Your task to perform on an android device: Search for "dell xps" on bestbuy, select the first entry, add it to the cart, then select checkout. Image 0: 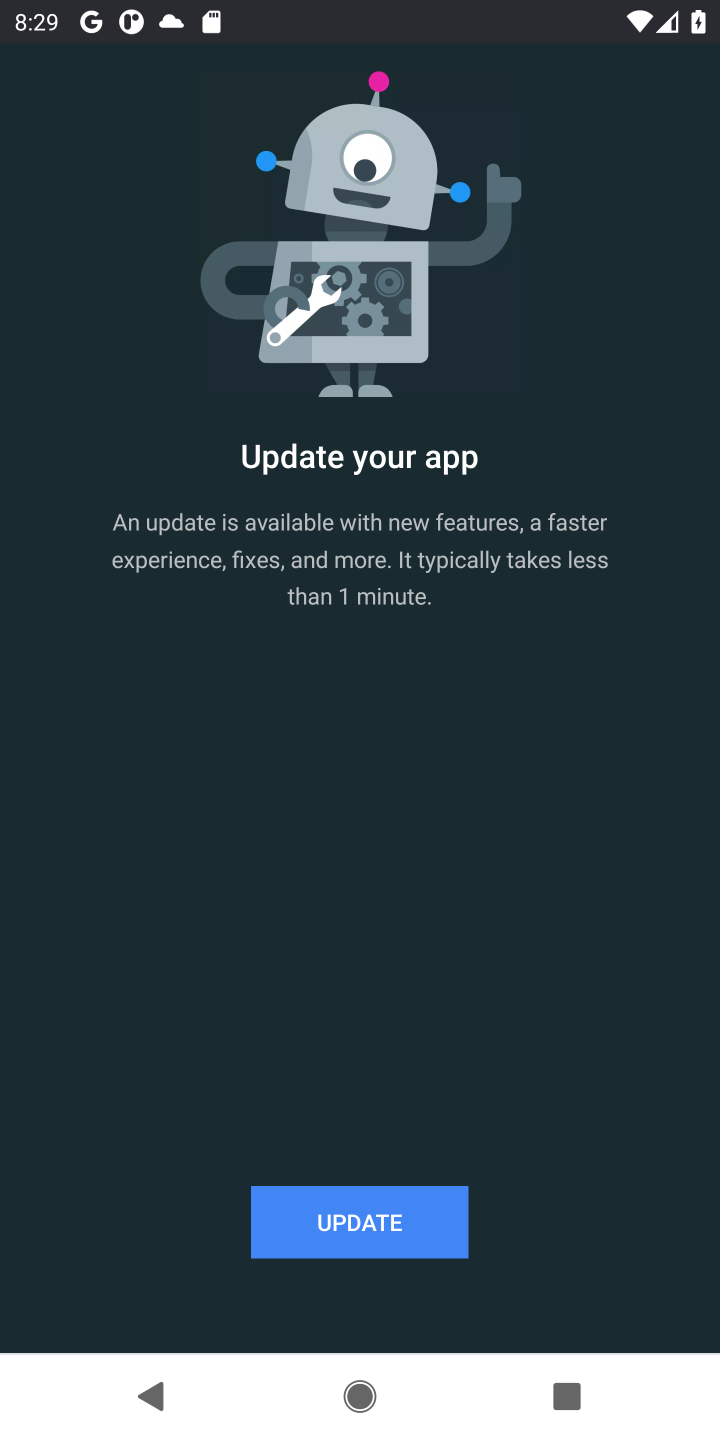
Step 0: press home button
Your task to perform on an android device: Search for "dell xps" on bestbuy, select the first entry, add it to the cart, then select checkout. Image 1: 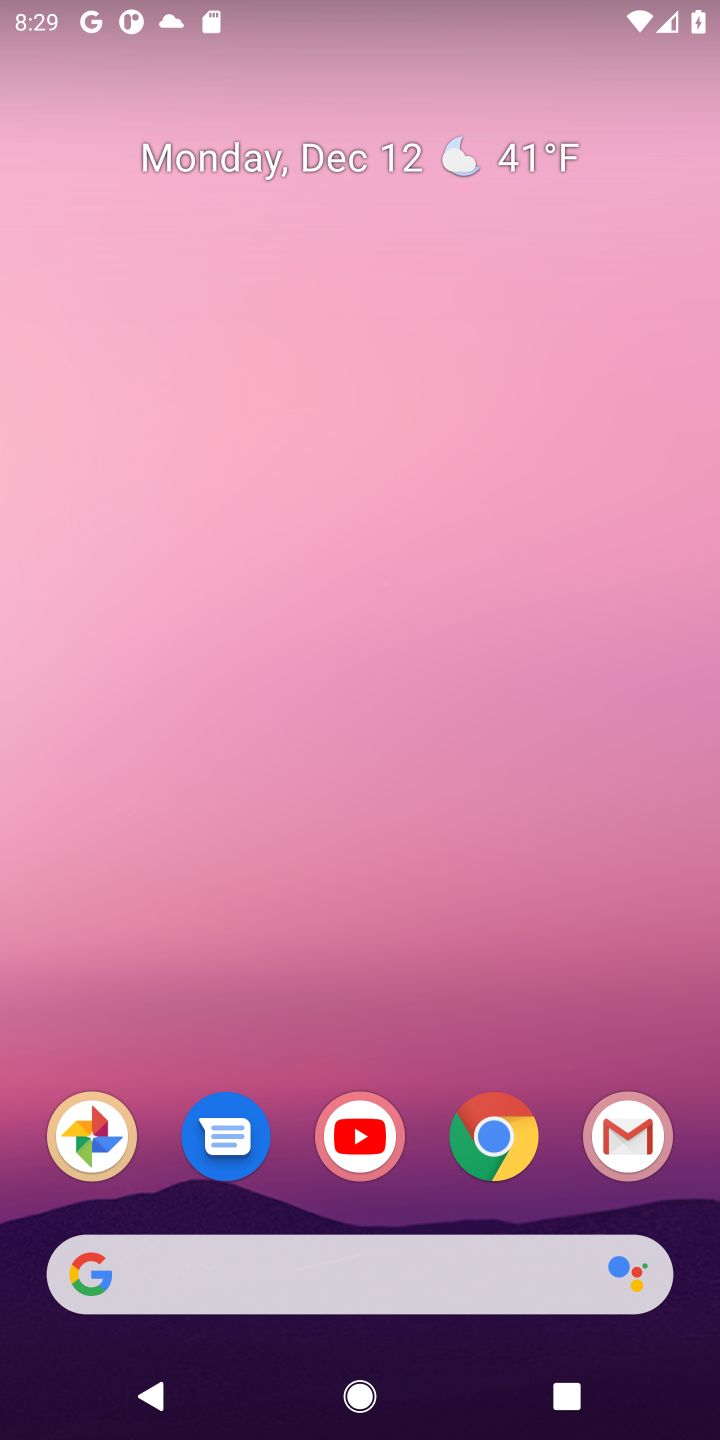
Step 1: click (502, 1130)
Your task to perform on an android device: Search for "dell xps" on bestbuy, select the first entry, add it to the cart, then select checkout. Image 2: 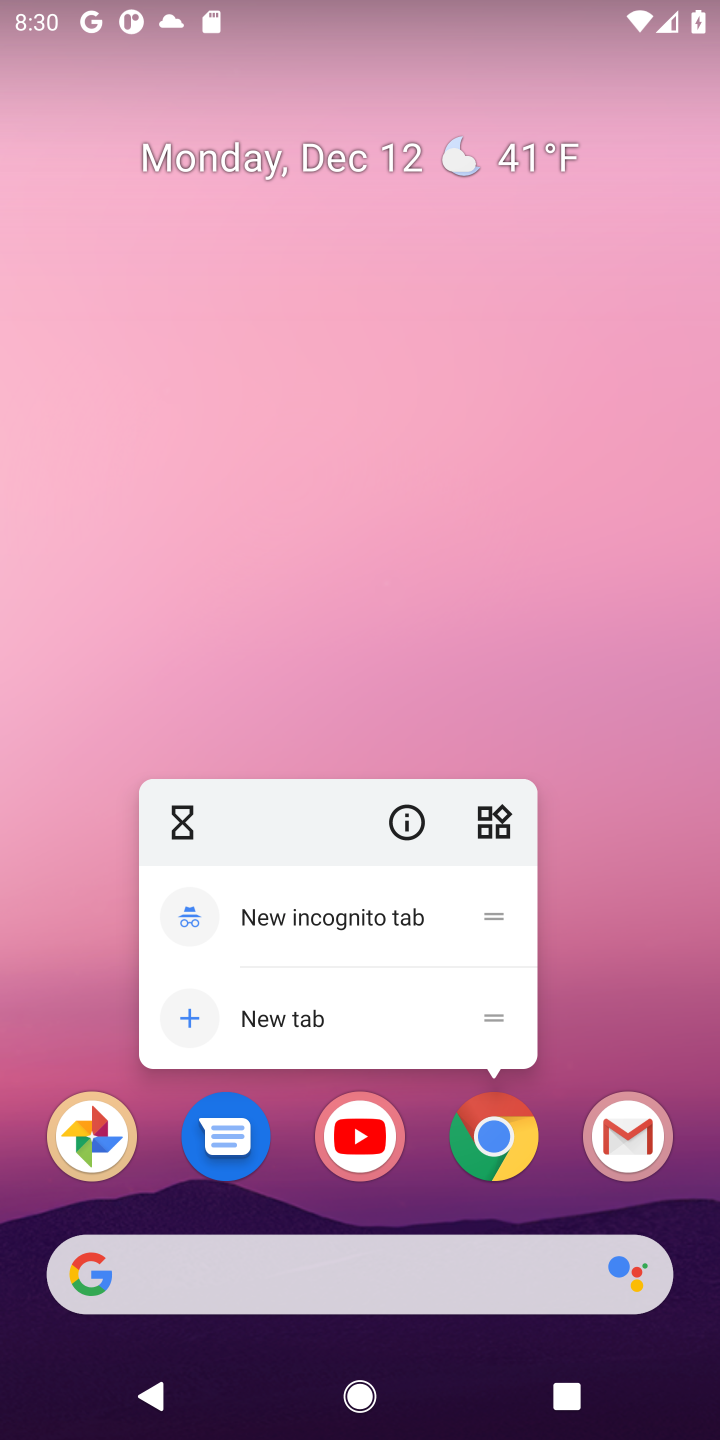
Step 2: click (502, 1130)
Your task to perform on an android device: Search for "dell xps" on bestbuy, select the first entry, add it to the cart, then select checkout. Image 3: 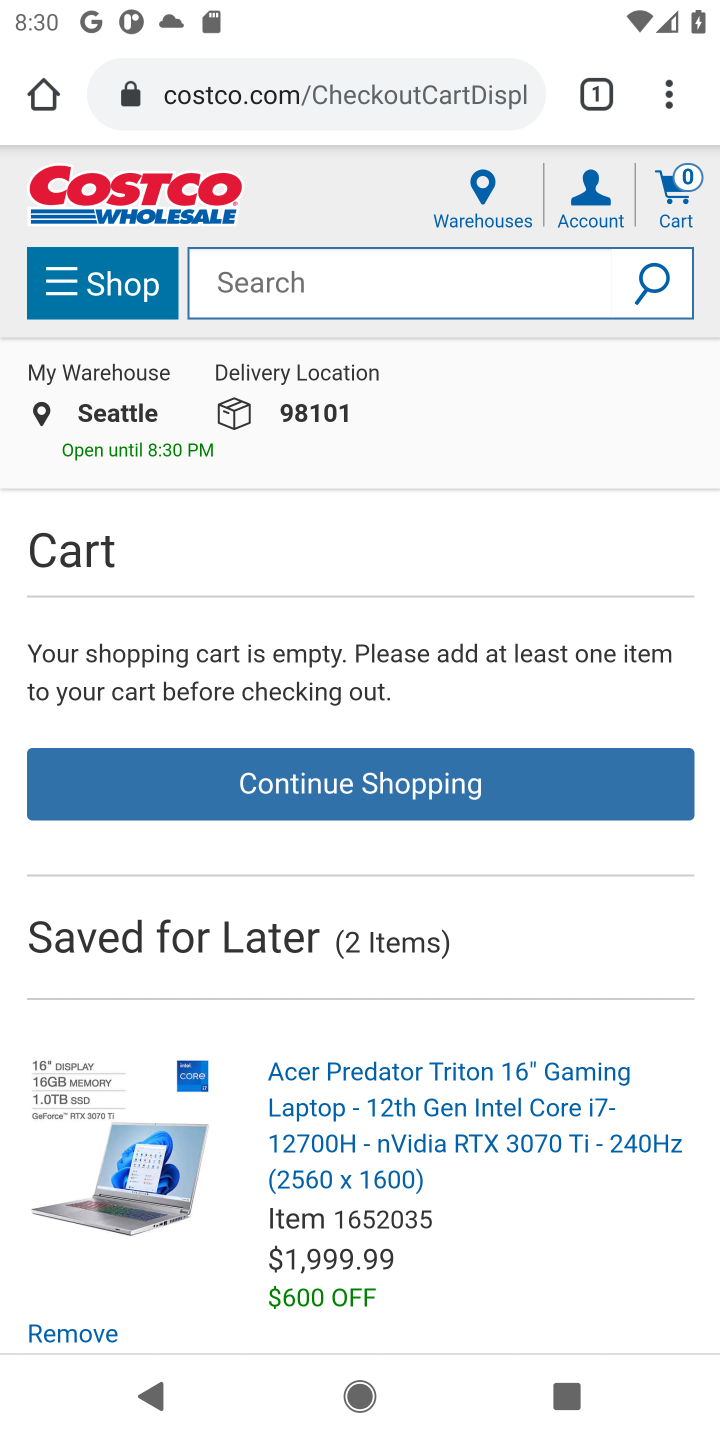
Step 3: click (299, 86)
Your task to perform on an android device: Search for "dell xps" on bestbuy, select the first entry, add it to the cart, then select checkout. Image 4: 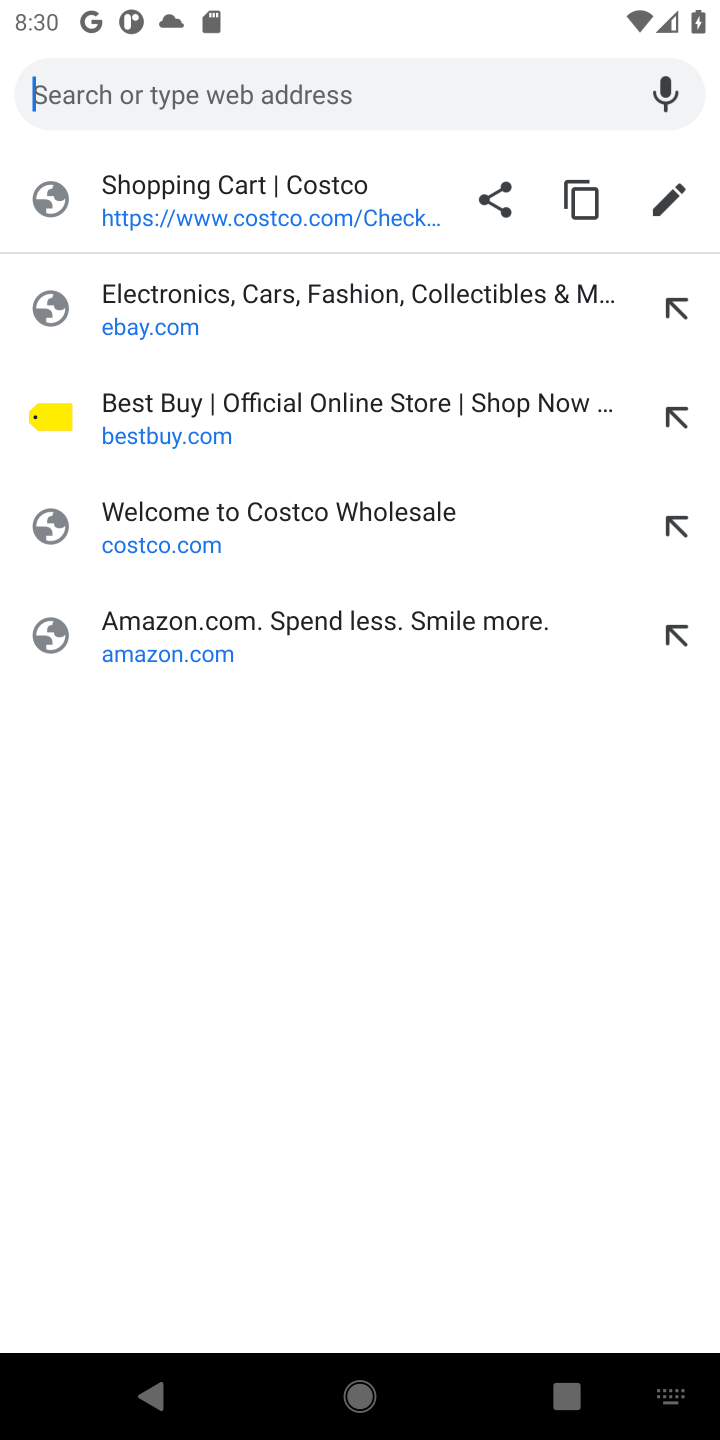
Step 4: click (156, 422)
Your task to perform on an android device: Search for "dell xps" on bestbuy, select the first entry, add it to the cart, then select checkout. Image 5: 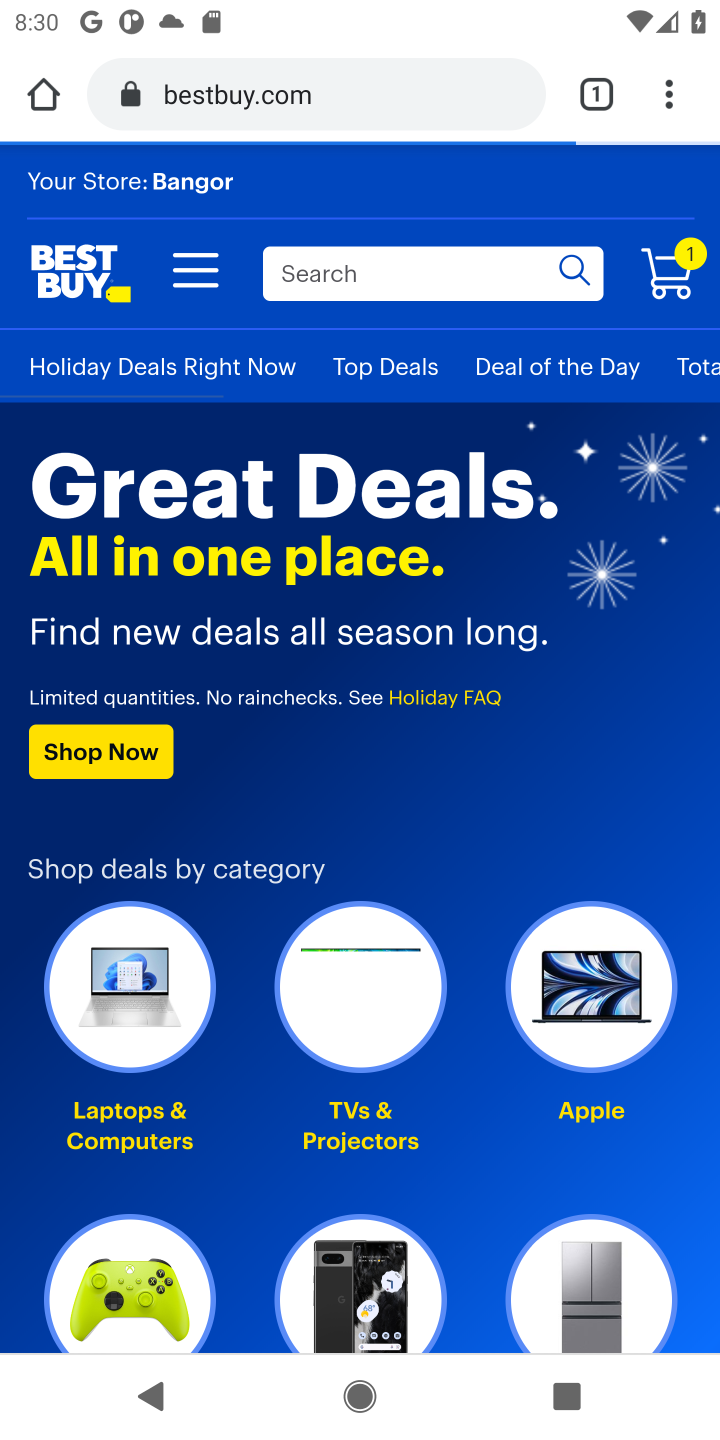
Step 5: click (156, 422)
Your task to perform on an android device: Search for "dell xps" on bestbuy, select the first entry, add it to the cart, then select checkout. Image 6: 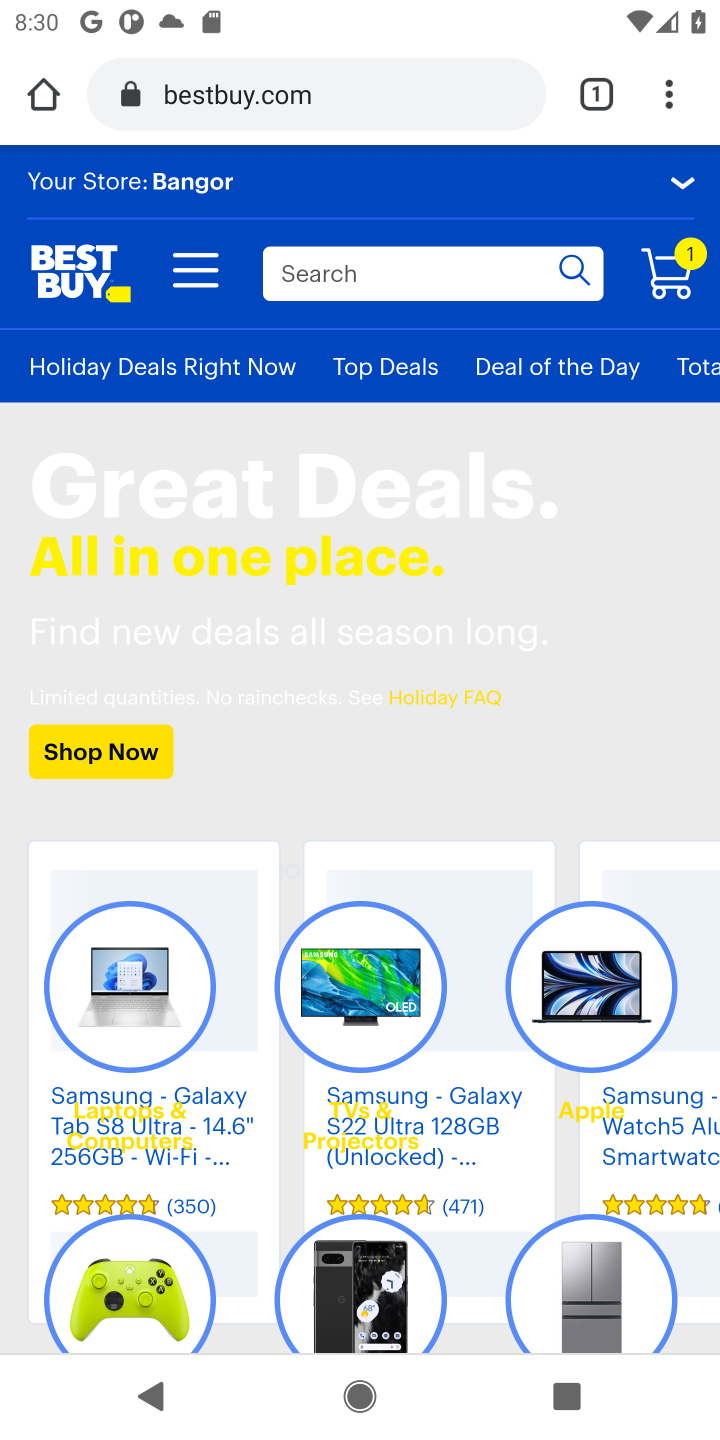
Step 6: click (369, 267)
Your task to perform on an android device: Search for "dell xps" on bestbuy, select the first entry, add it to the cart, then select checkout. Image 7: 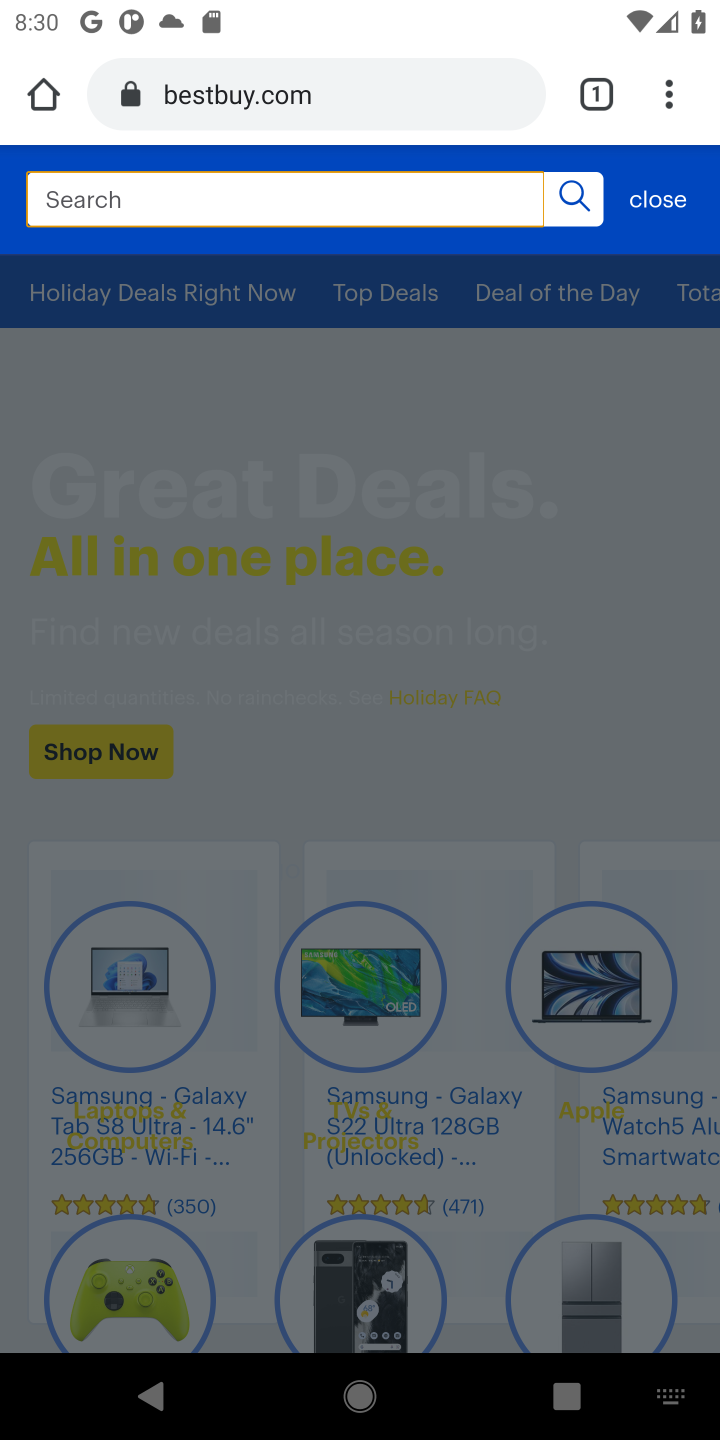
Step 7: type "dell xps"
Your task to perform on an android device: Search for "dell xps" on bestbuy, select the first entry, add it to the cart, then select checkout. Image 8: 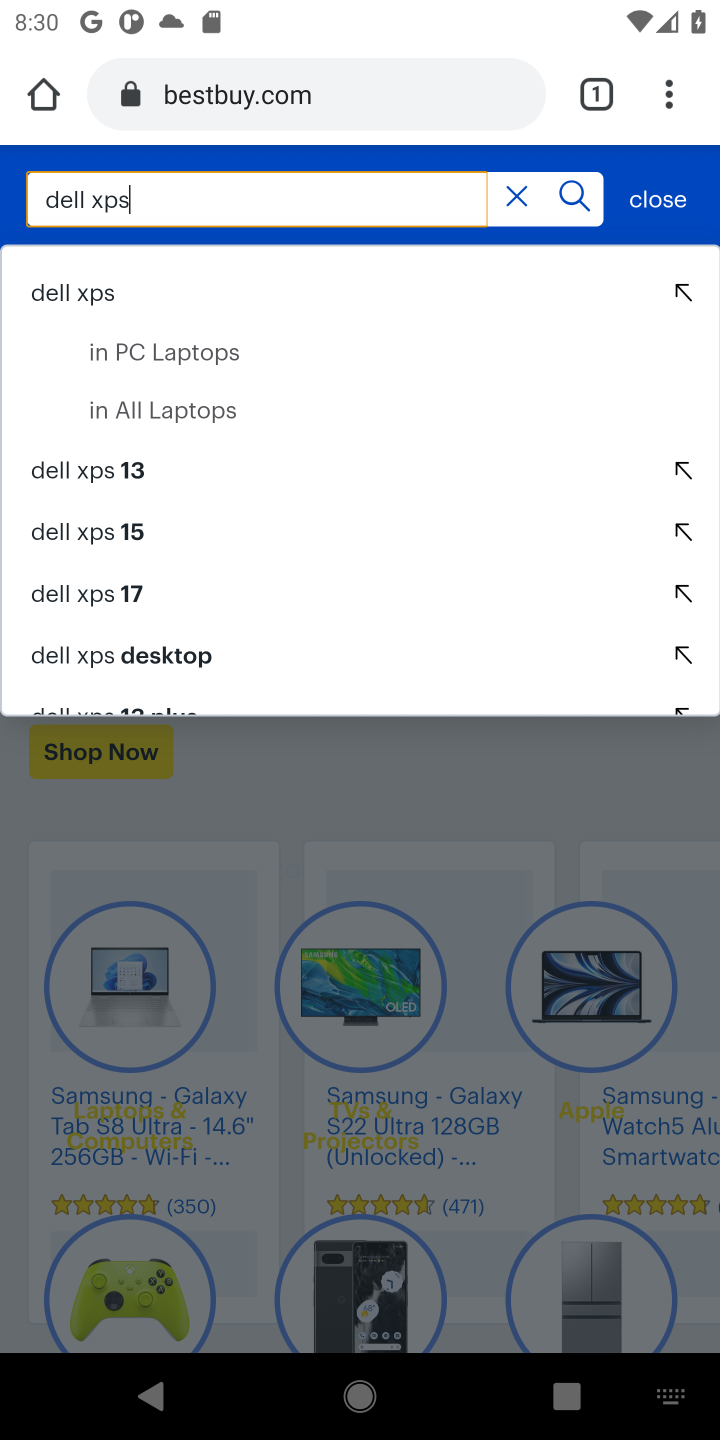
Step 8: click (73, 302)
Your task to perform on an android device: Search for "dell xps" on bestbuy, select the first entry, add it to the cart, then select checkout. Image 9: 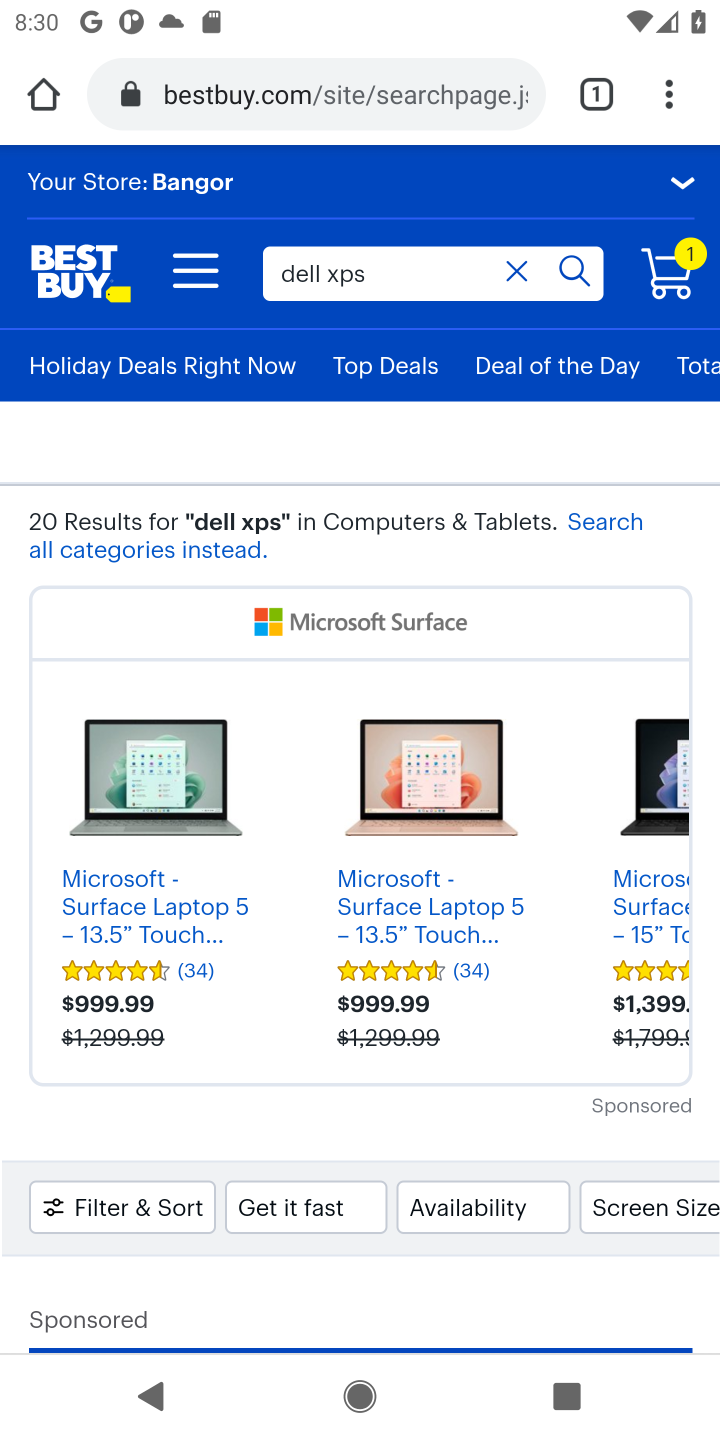
Step 9: drag from (295, 1007) to (233, 463)
Your task to perform on an android device: Search for "dell xps" on bestbuy, select the first entry, add it to the cart, then select checkout. Image 10: 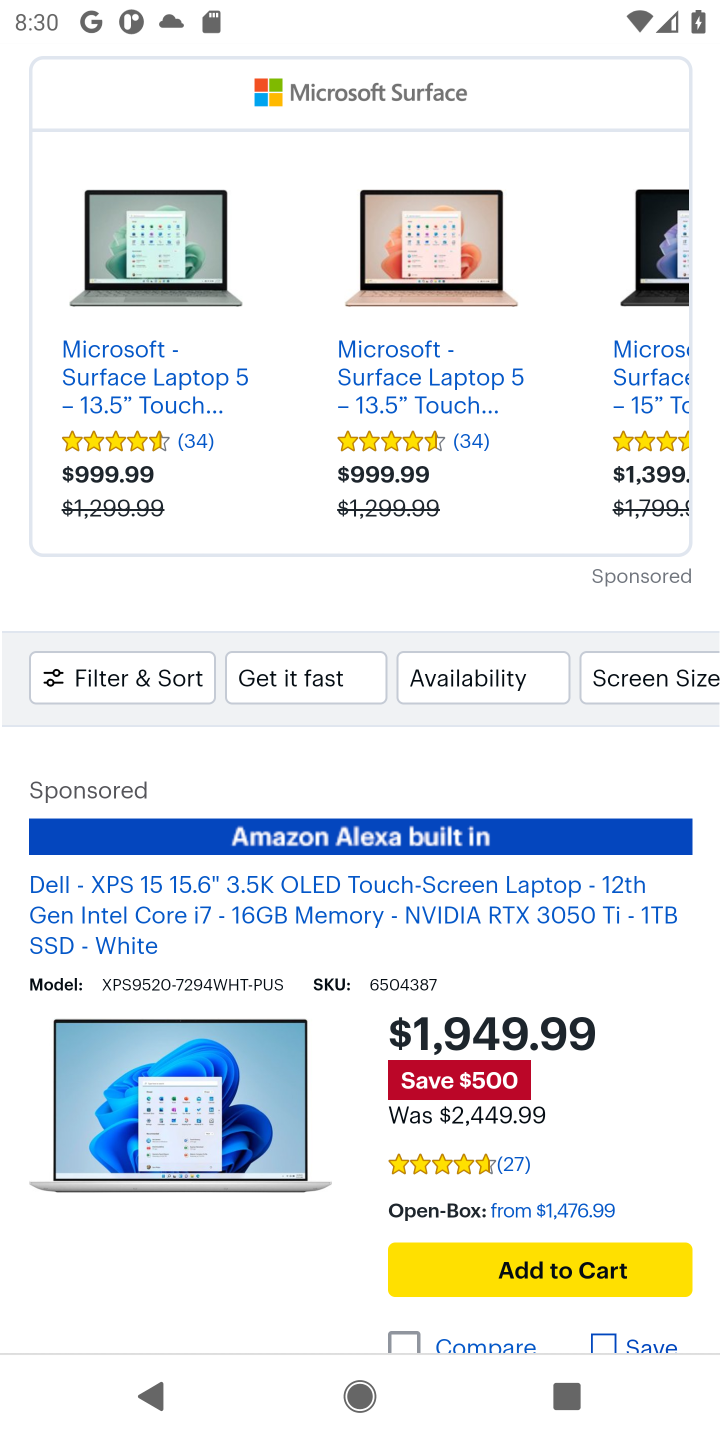
Step 10: drag from (279, 1027) to (259, 704)
Your task to perform on an android device: Search for "dell xps" on bestbuy, select the first entry, add it to the cart, then select checkout. Image 11: 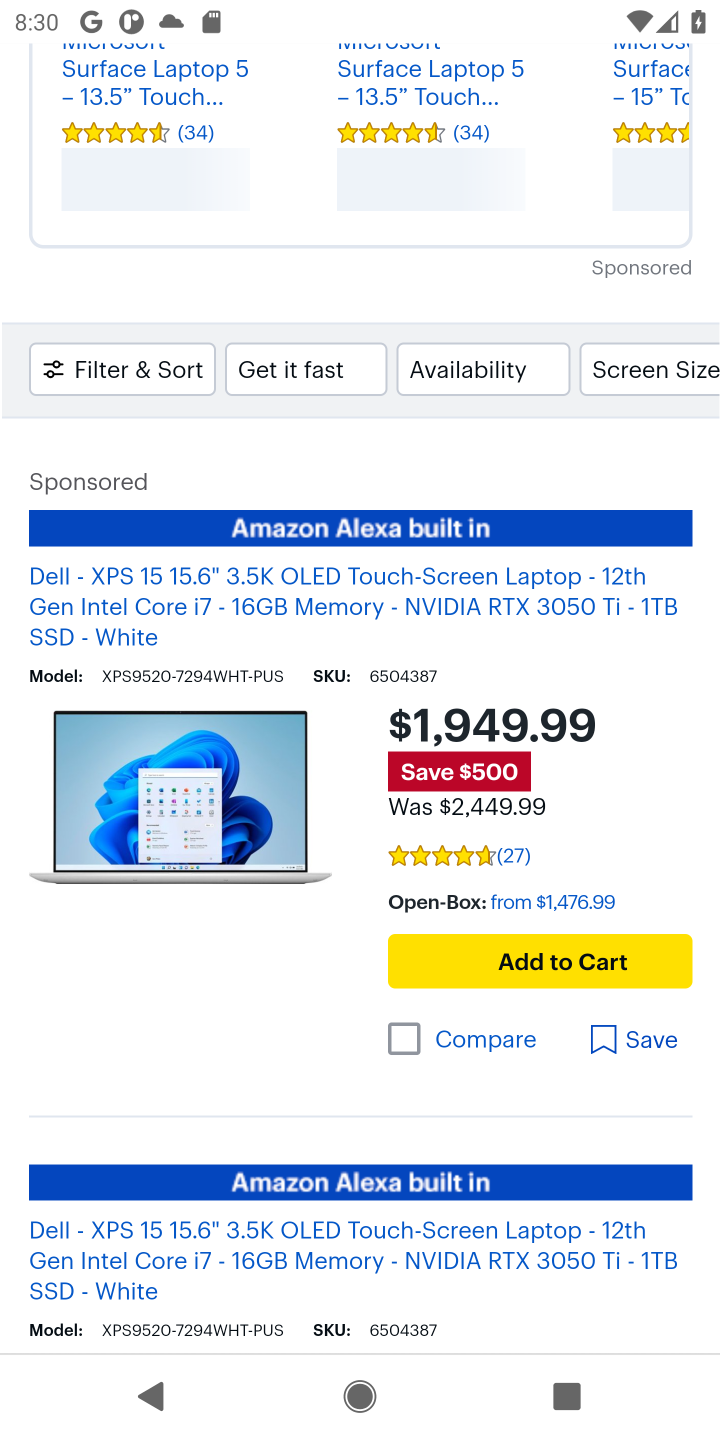
Step 11: click (476, 953)
Your task to perform on an android device: Search for "dell xps" on bestbuy, select the first entry, add it to the cart, then select checkout. Image 12: 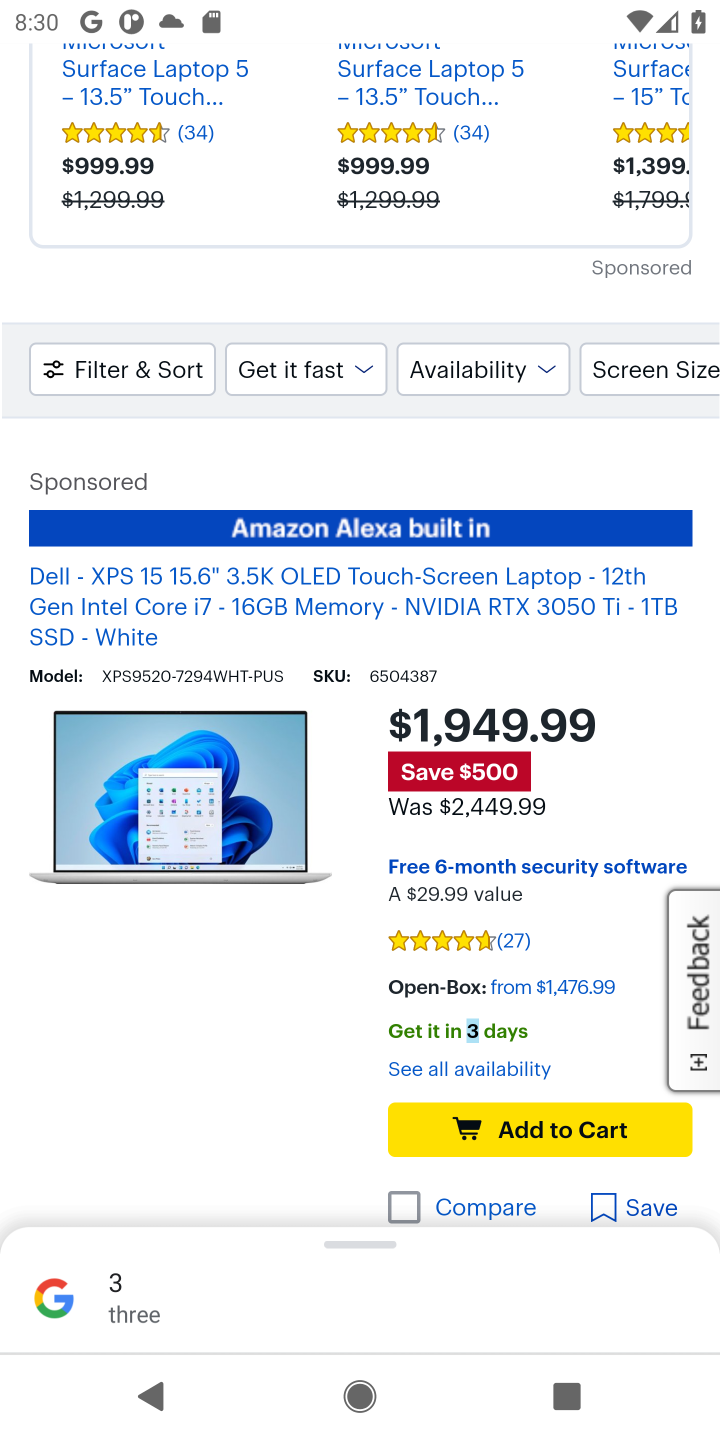
Step 12: click (511, 1118)
Your task to perform on an android device: Search for "dell xps" on bestbuy, select the first entry, add it to the cart, then select checkout. Image 13: 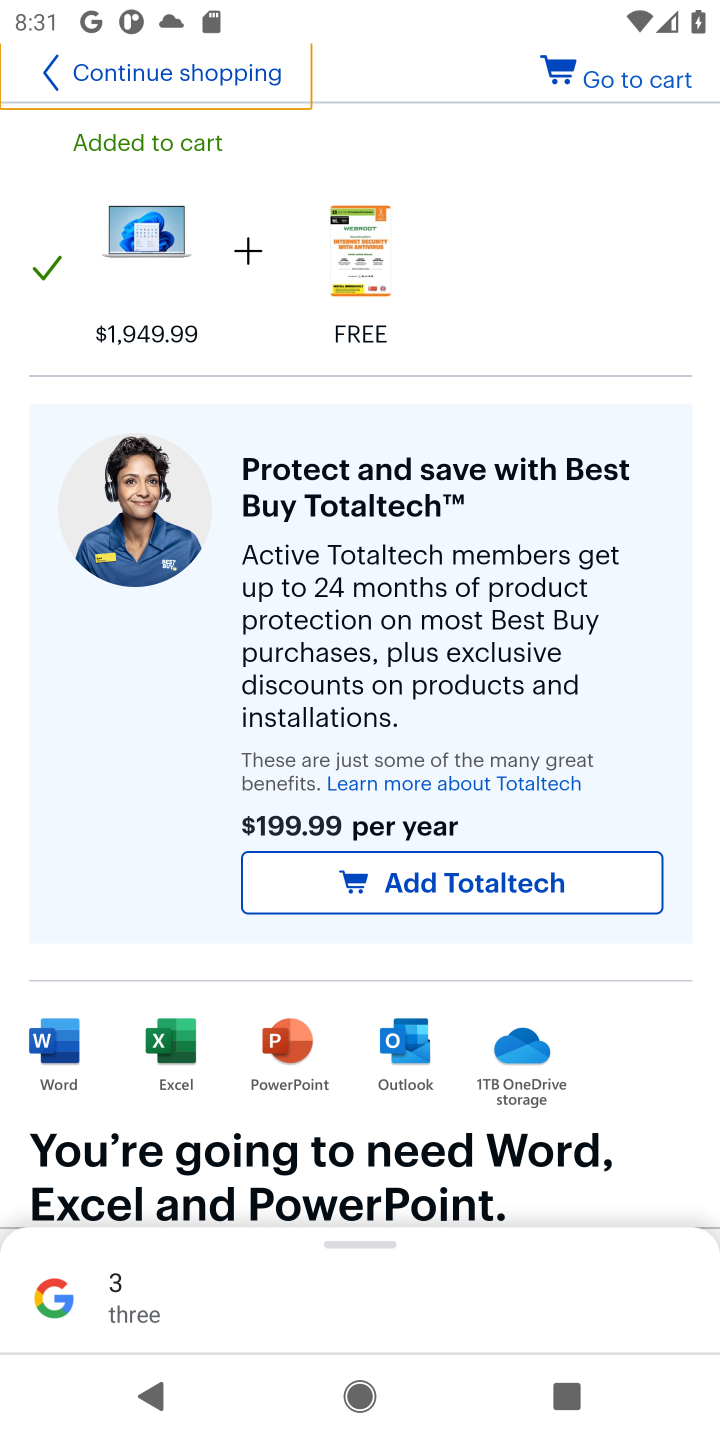
Step 13: click (631, 85)
Your task to perform on an android device: Search for "dell xps" on bestbuy, select the first entry, add it to the cart, then select checkout. Image 14: 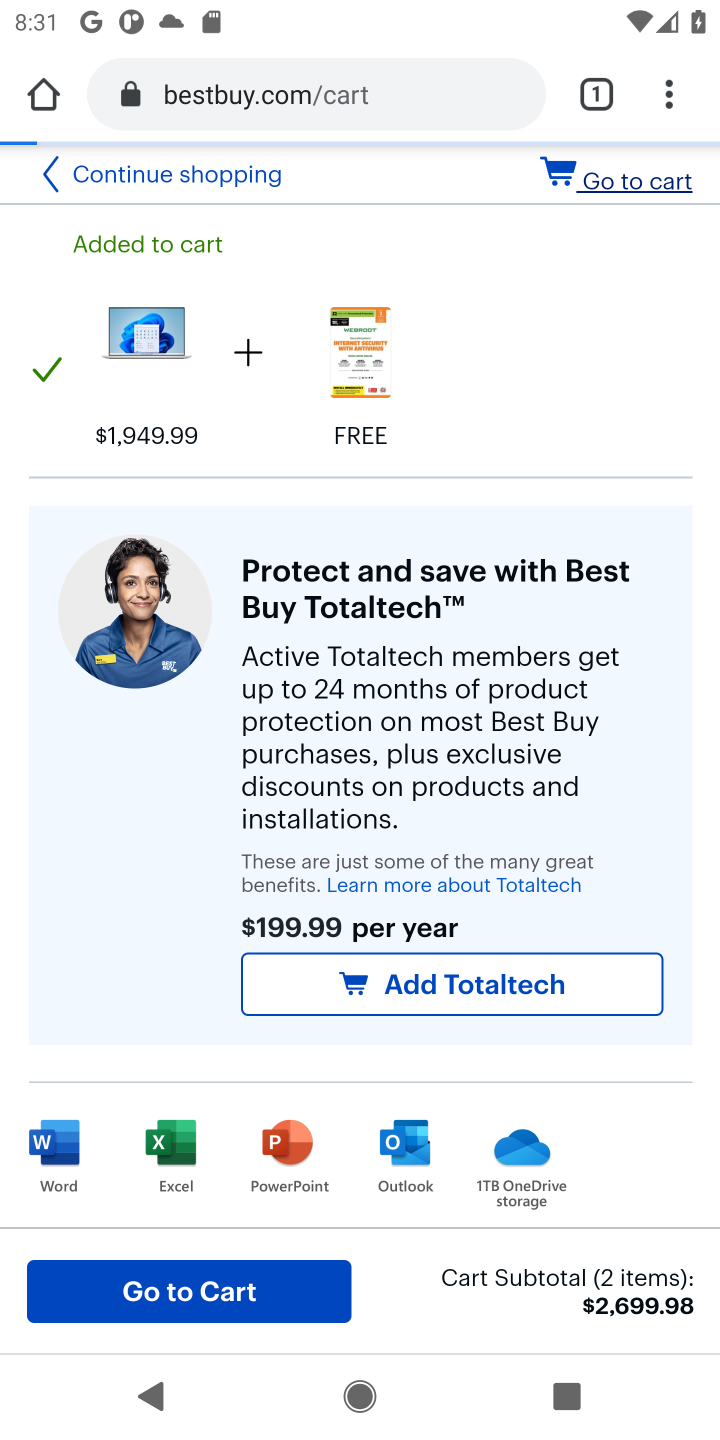
Step 14: click (653, 187)
Your task to perform on an android device: Search for "dell xps" on bestbuy, select the first entry, add it to the cart, then select checkout. Image 15: 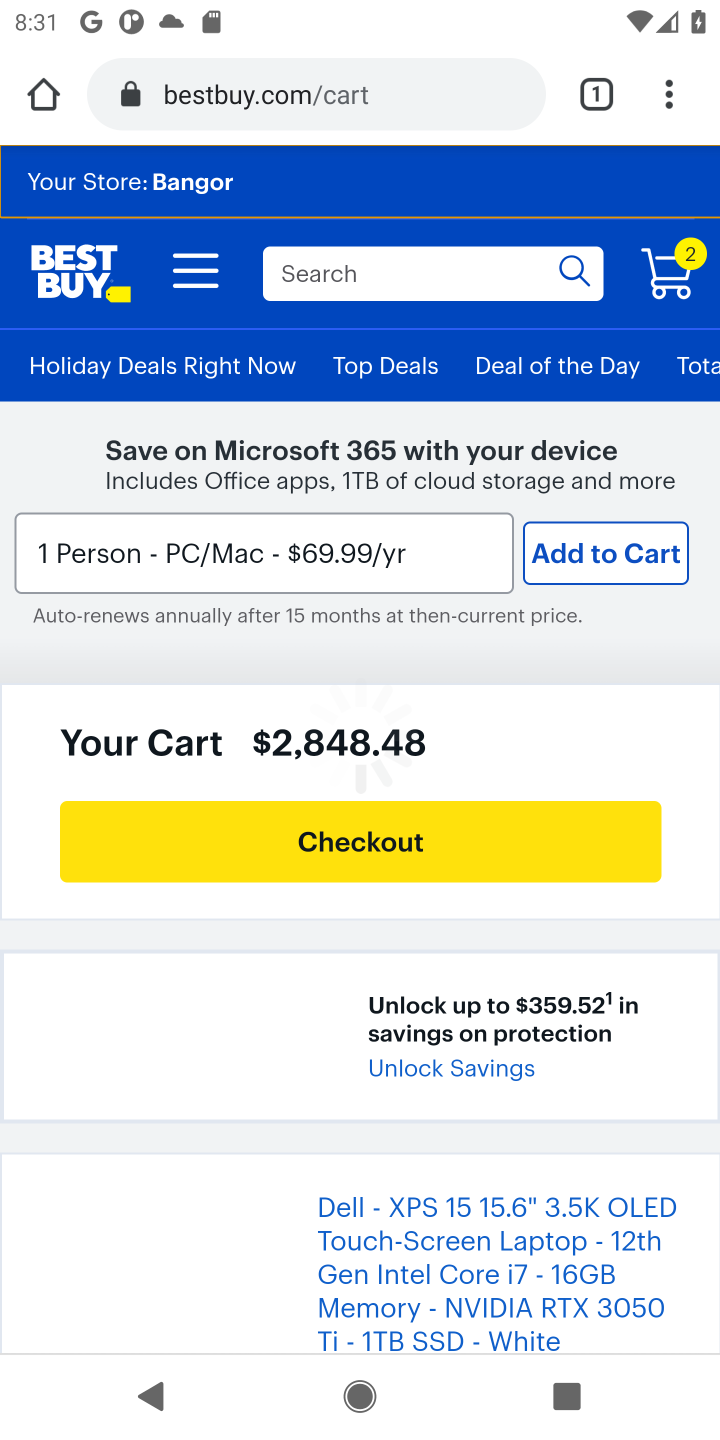
Step 15: click (394, 826)
Your task to perform on an android device: Search for "dell xps" on bestbuy, select the first entry, add it to the cart, then select checkout. Image 16: 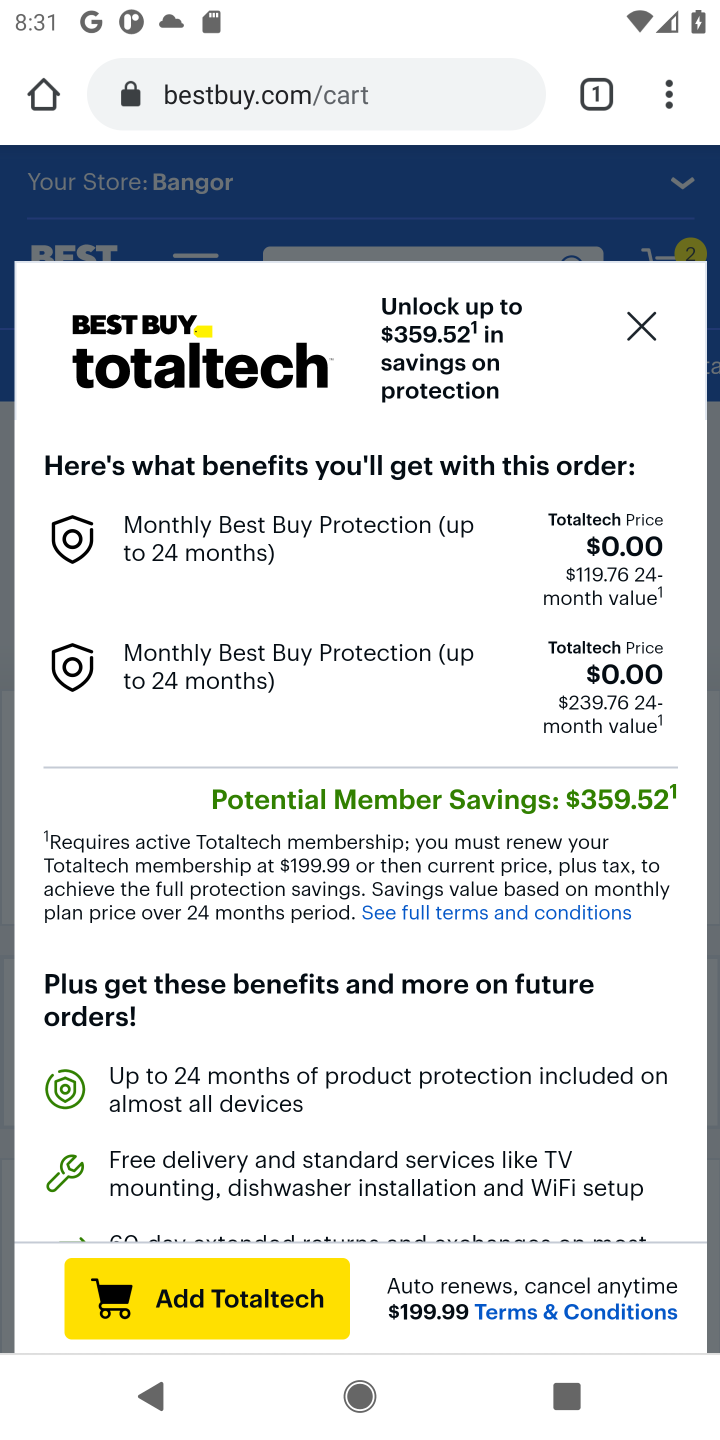
Step 16: click (656, 324)
Your task to perform on an android device: Search for "dell xps" on bestbuy, select the first entry, add it to the cart, then select checkout. Image 17: 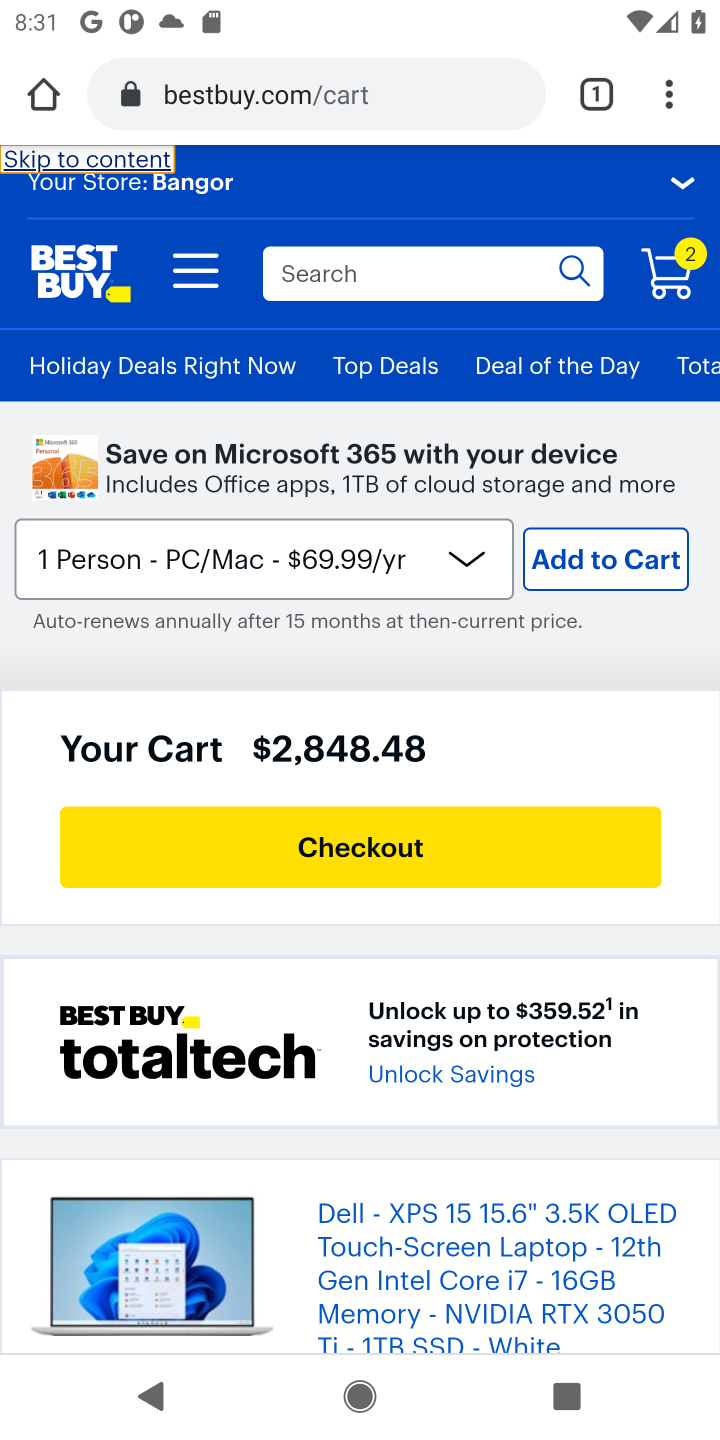
Step 17: click (386, 862)
Your task to perform on an android device: Search for "dell xps" on bestbuy, select the first entry, add it to the cart, then select checkout. Image 18: 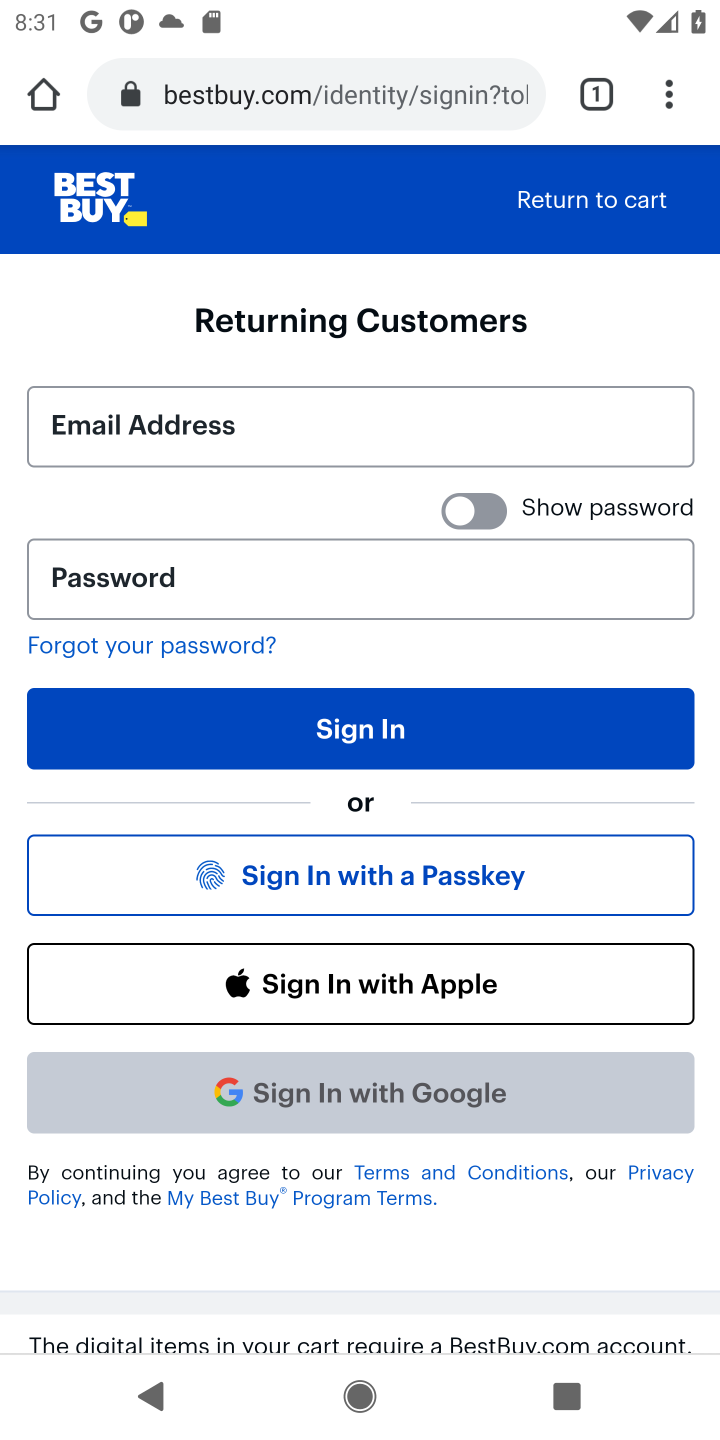
Step 18: task complete